Your task to perform on an android device: change notifications settings Image 0: 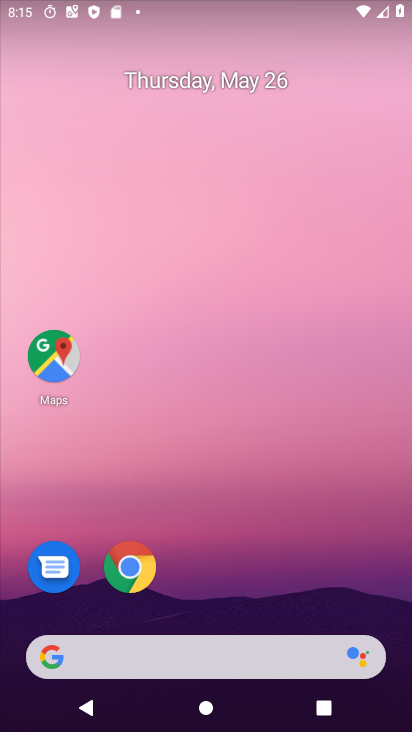
Step 0: drag from (188, 650) to (340, 81)
Your task to perform on an android device: change notifications settings Image 1: 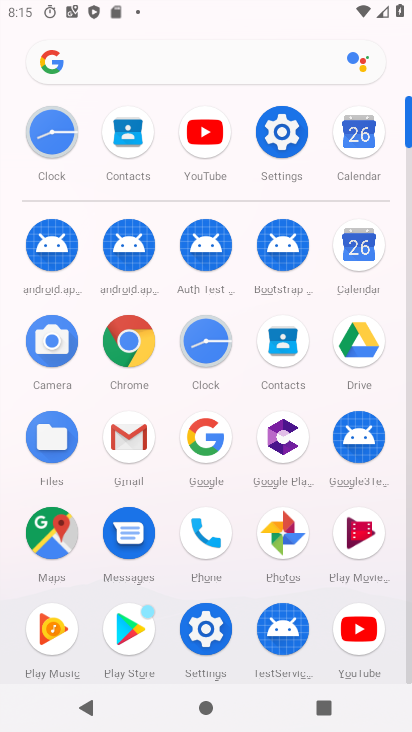
Step 1: click (293, 135)
Your task to perform on an android device: change notifications settings Image 2: 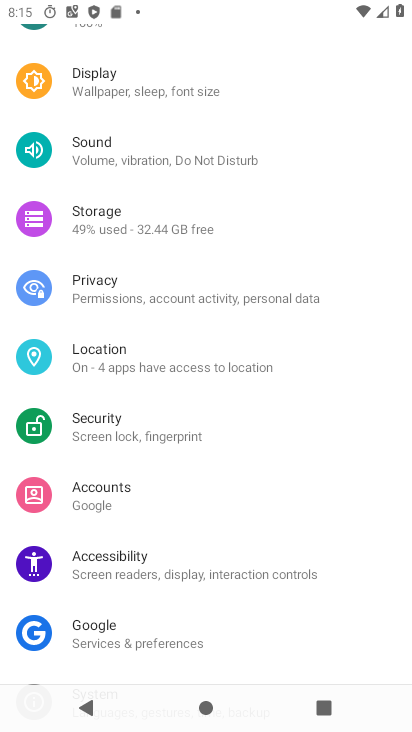
Step 2: drag from (327, 239) to (339, 612)
Your task to perform on an android device: change notifications settings Image 3: 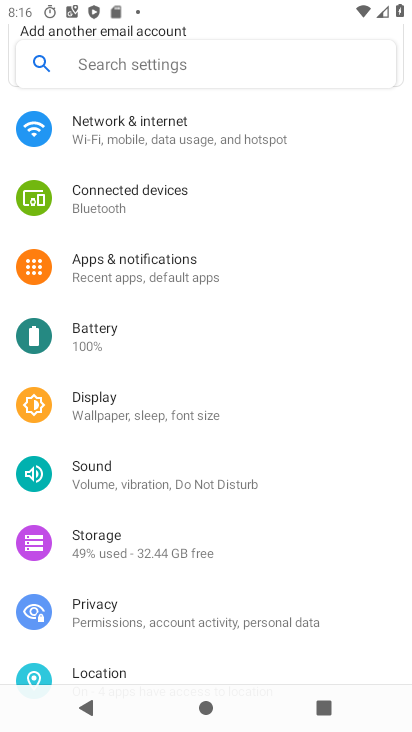
Step 3: click (160, 264)
Your task to perform on an android device: change notifications settings Image 4: 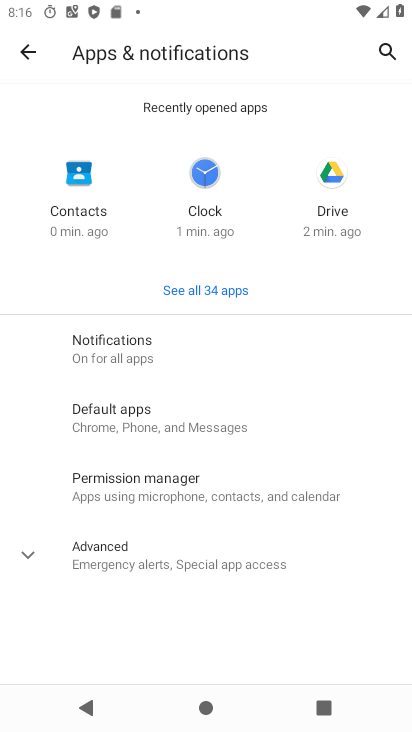
Step 4: click (106, 353)
Your task to perform on an android device: change notifications settings Image 5: 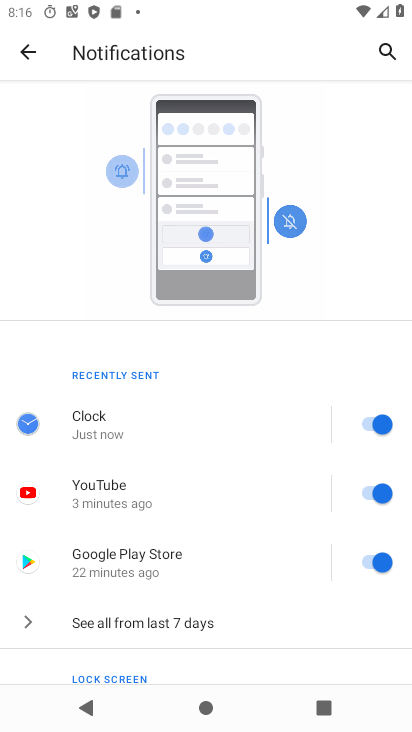
Step 5: click (367, 427)
Your task to perform on an android device: change notifications settings Image 6: 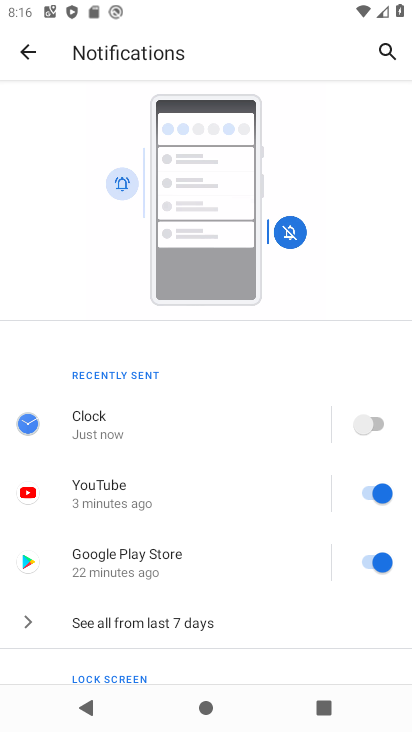
Step 6: task complete